Your task to perform on an android device: What's on my calendar tomorrow? Image 0: 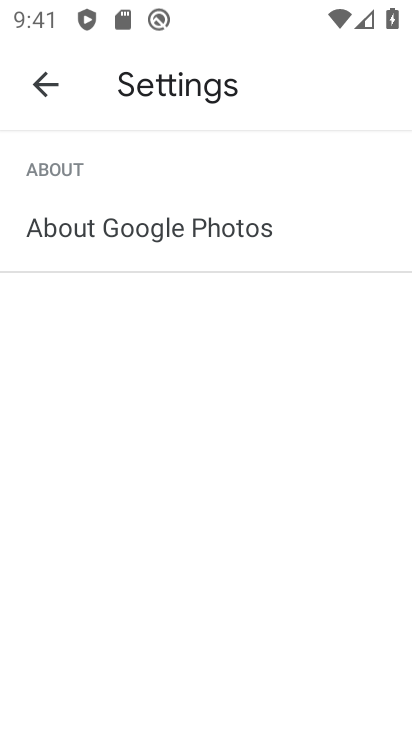
Step 0: press home button
Your task to perform on an android device: What's on my calendar tomorrow? Image 1: 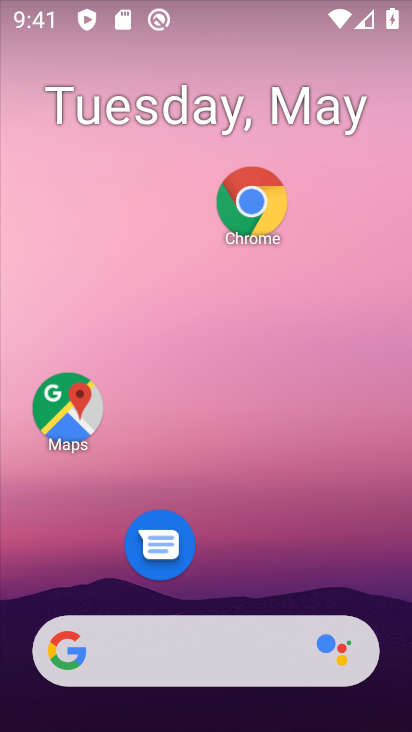
Step 1: drag from (390, 598) to (365, 184)
Your task to perform on an android device: What's on my calendar tomorrow? Image 2: 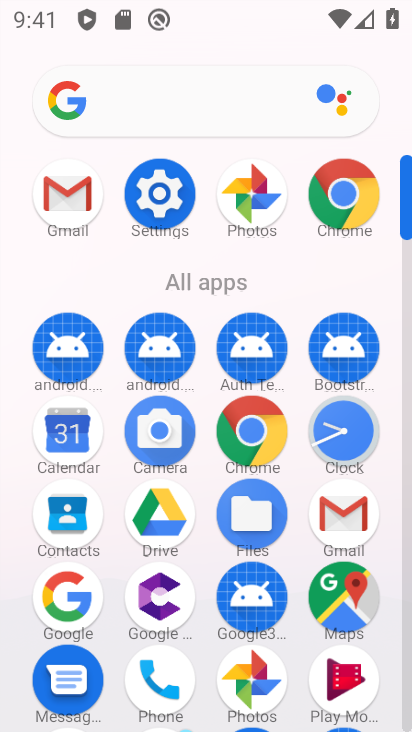
Step 2: click (83, 435)
Your task to perform on an android device: What's on my calendar tomorrow? Image 3: 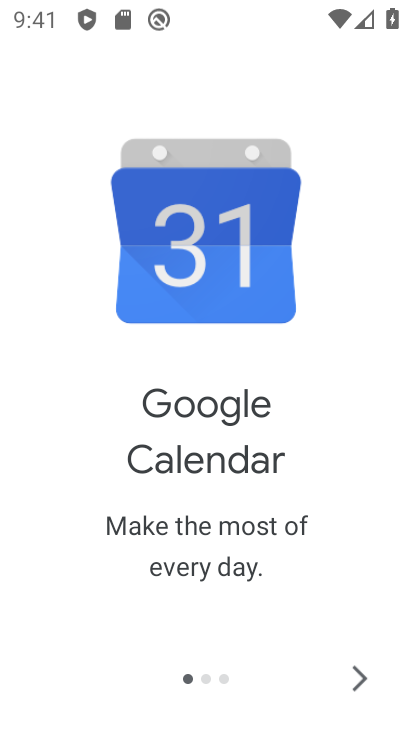
Step 3: click (360, 670)
Your task to perform on an android device: What's on my calendar tomorrow? Image 4: 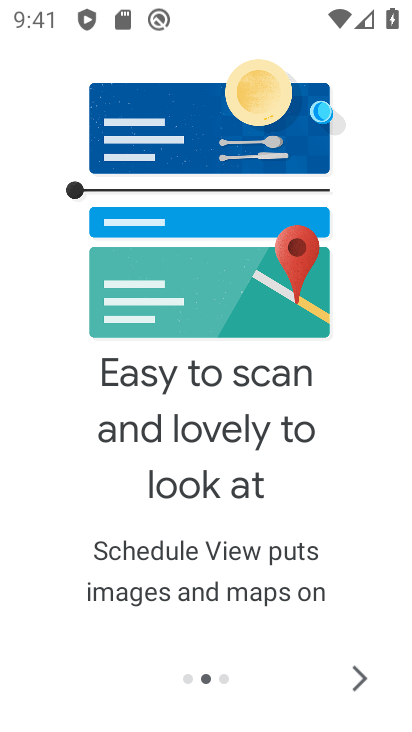
Step 4: click (360, 670)
Your task to perform on an android device: What's on my calendar tomorrow? Image 5: 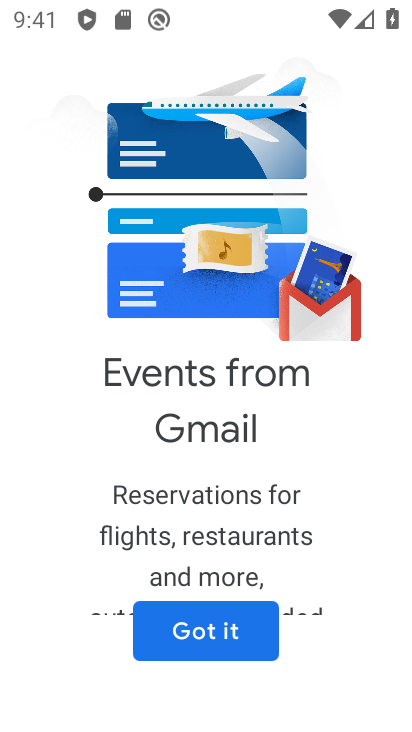
Step 5: click (252, 655)
Your task to perform on an android device: What's on my calendar tomorrow? Image 6: 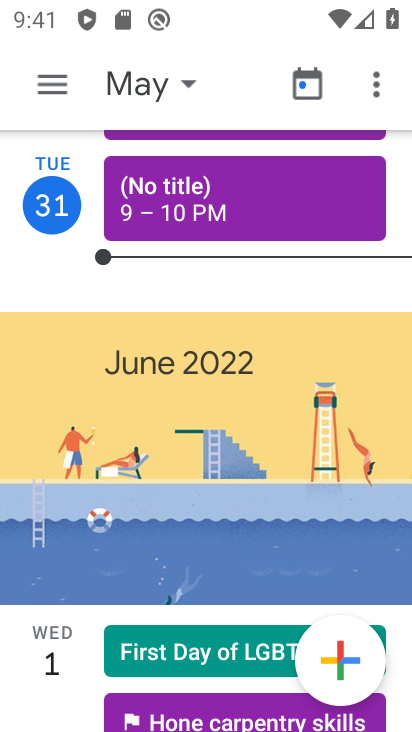
Step 6: click (187, 97)
Your task to perform on an android device: What's on my calendar tomorrow? Image 7: 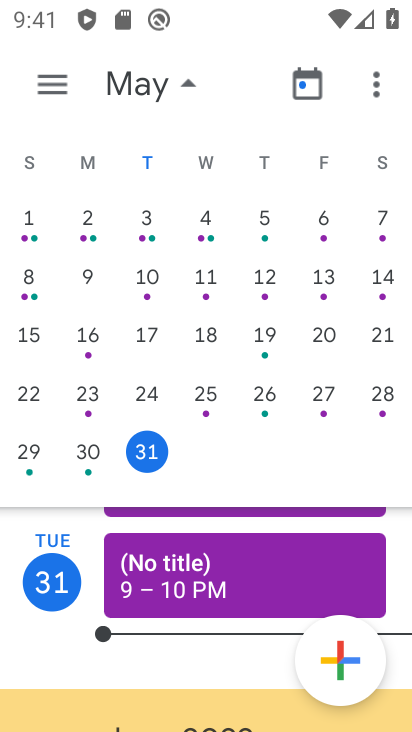
Step 7: drag from (394, 361) to (30, 320)
Your task to perform on an android device: What's on my calendar tomorrow? Image 8: 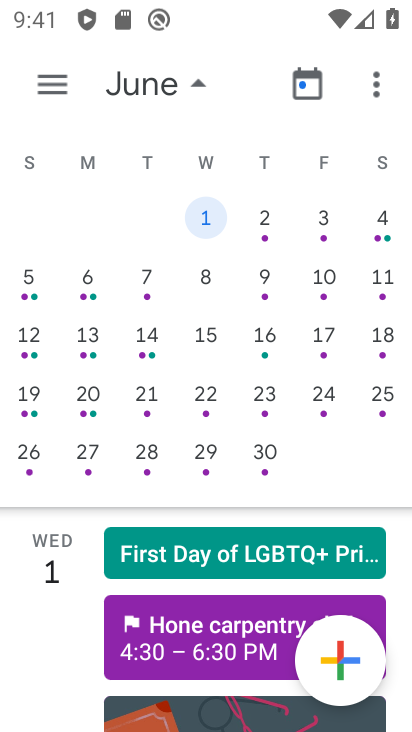
Step 8: click (260, 229)
Your task to perform on an android device: What's on my calendar tomorrow? Image 9: 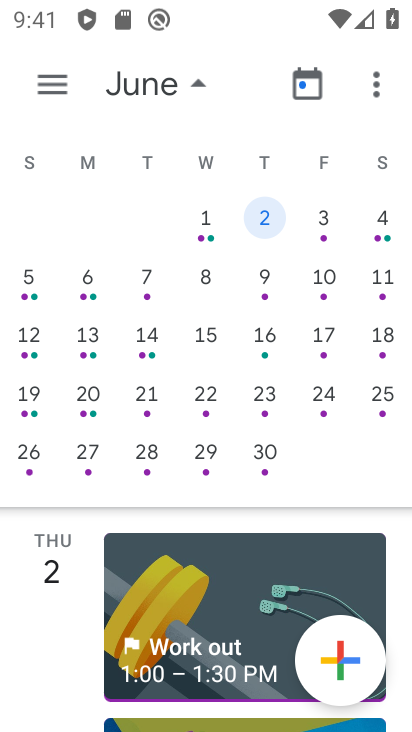
Step 9: click (185, 102)
Your task to perform on an android device: What's on my calendar tomorrow? Image 10: 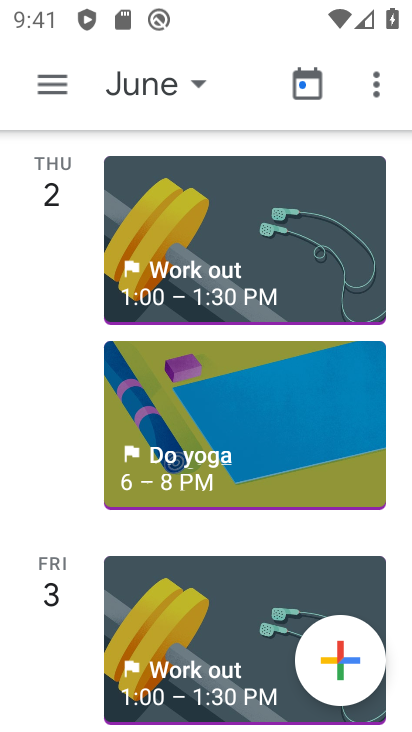
Step 10: task complete